Your task to perform on an android device: View the shopping cart on ebay. Add apple airpods to the cart on ebay, then select checkout. Image 0: 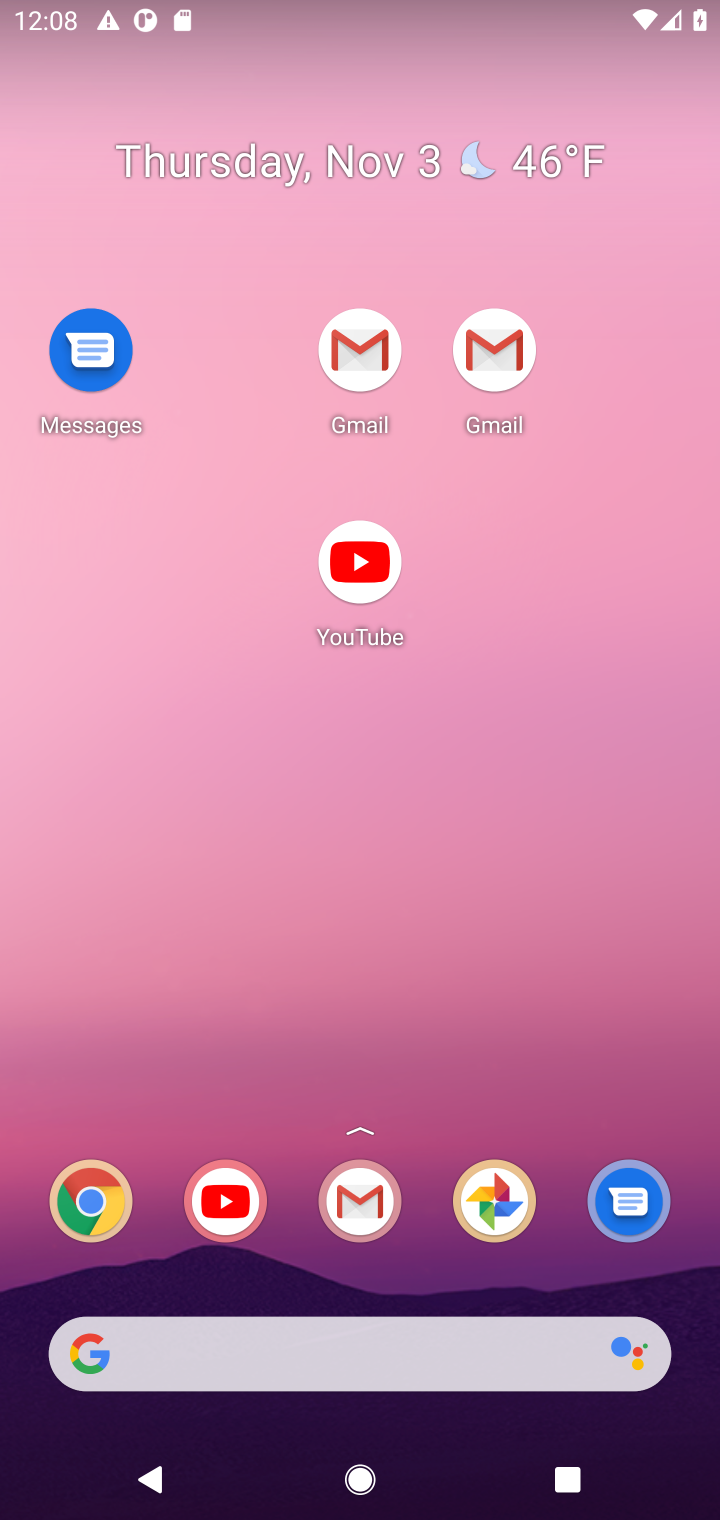
Step 0: drag from (504, 927) to (535, 262)
Your task to perform on an android device: View the shopping cart on ebay. Add apple airpods to the cart on ebay, then select checkout. Image 1: 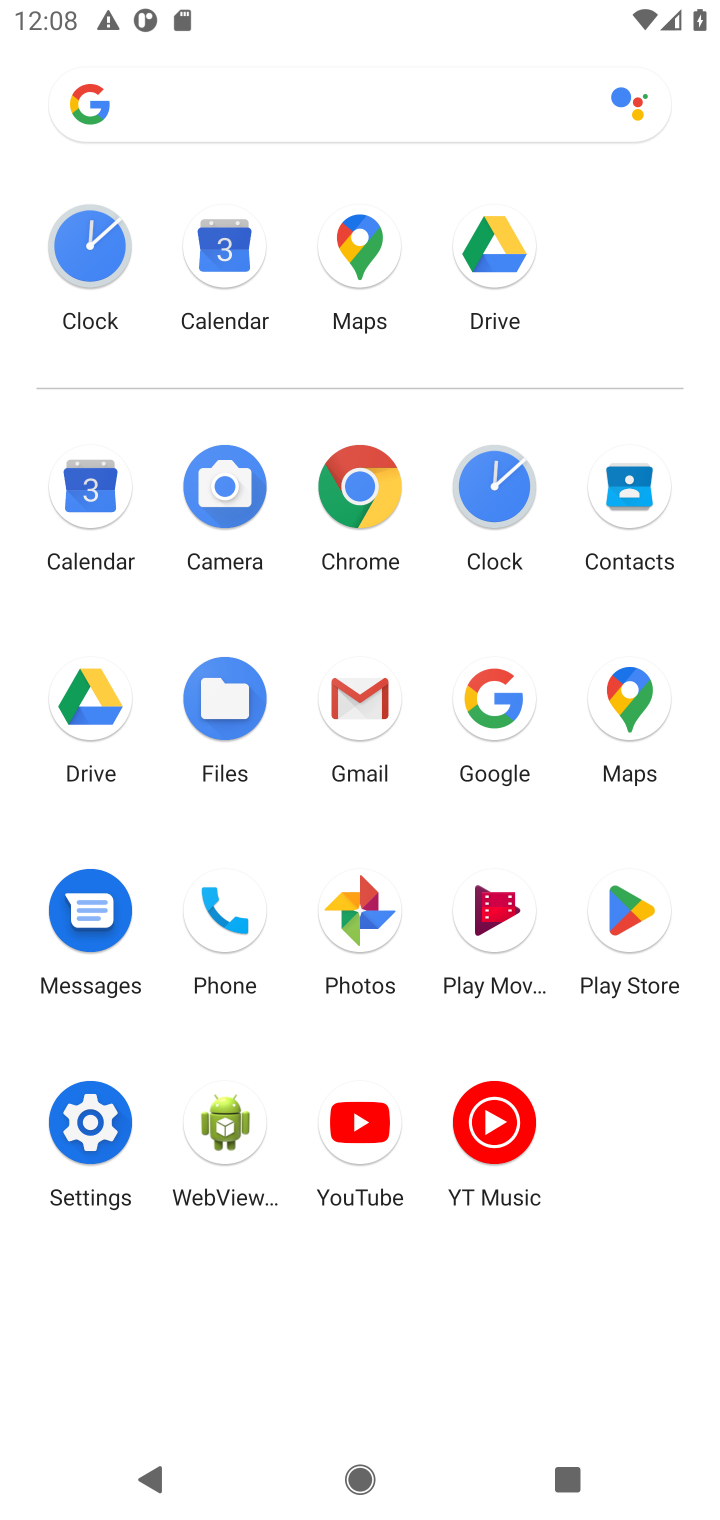
Step 1: click (375, 478)
Your task to perform on an android device: View the shopping cart on ebay. Add apple airpods to the cart on ebay, then select checkout. Image 2: 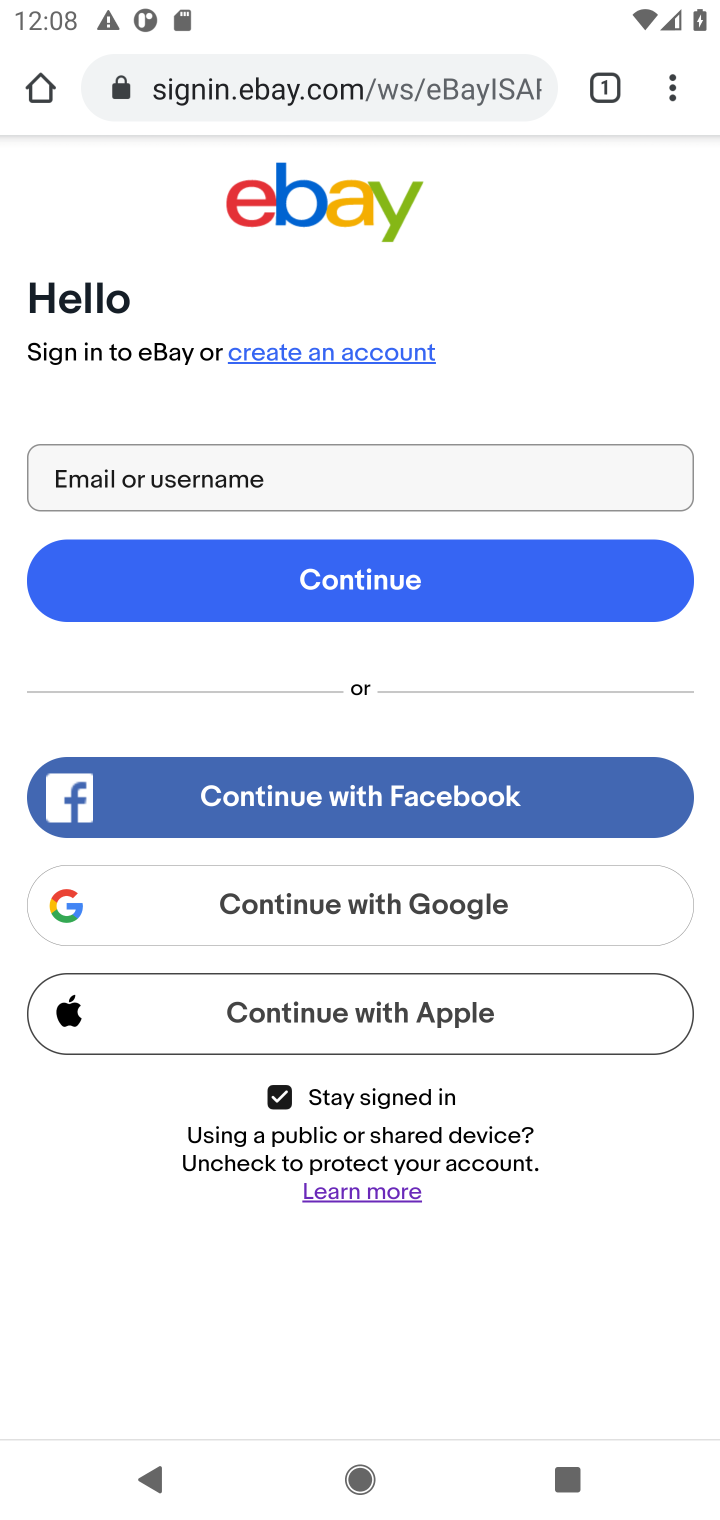
Step 2: click (316, 79)
Your task to perform on an android device: View the shopping cart on ebay. Add apple airpods to the cart on ebay, then select checkout. Image 3: 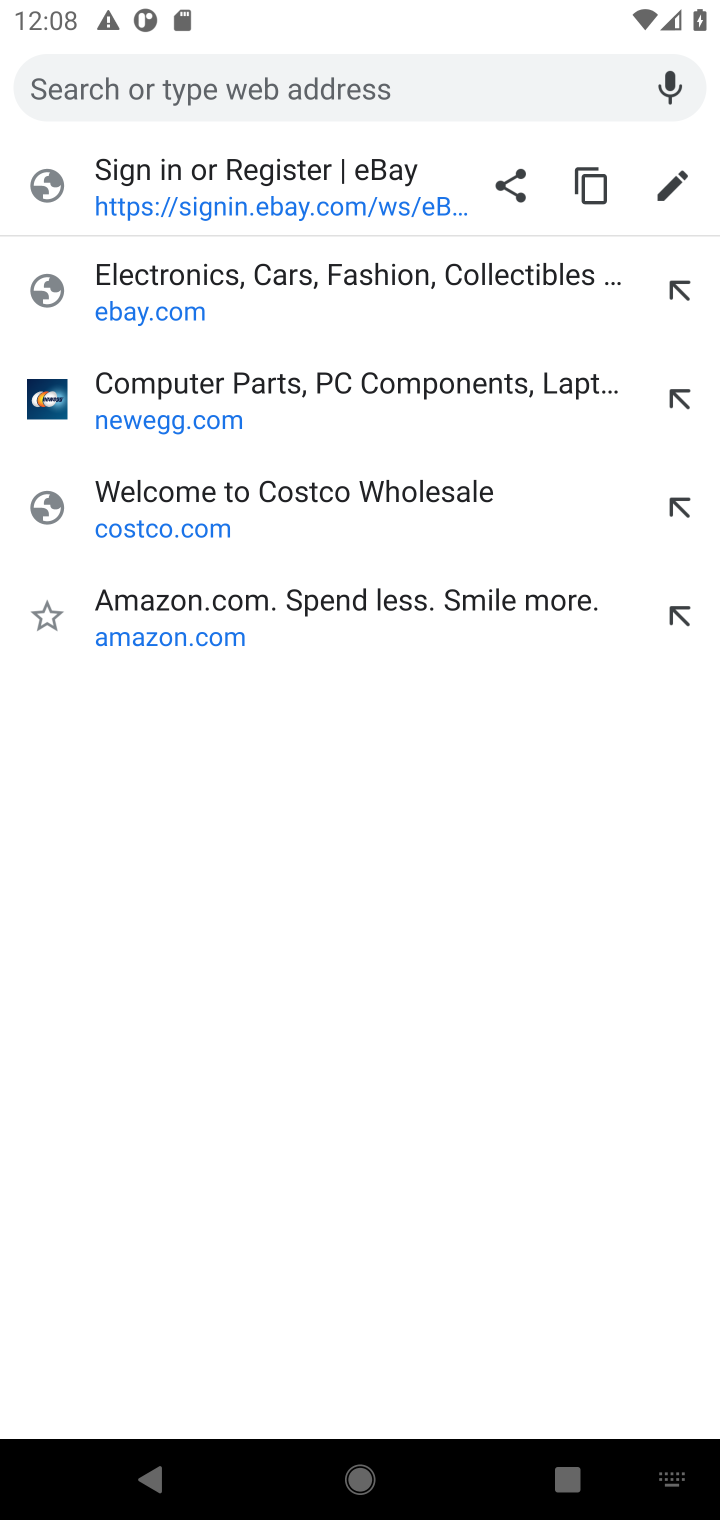
Step 3: type "ebay.com"
Your task to perform on an android device: View the shopping cart on ebay. Add apple airpods to the cart on ebay, then select checkout. Image 4: 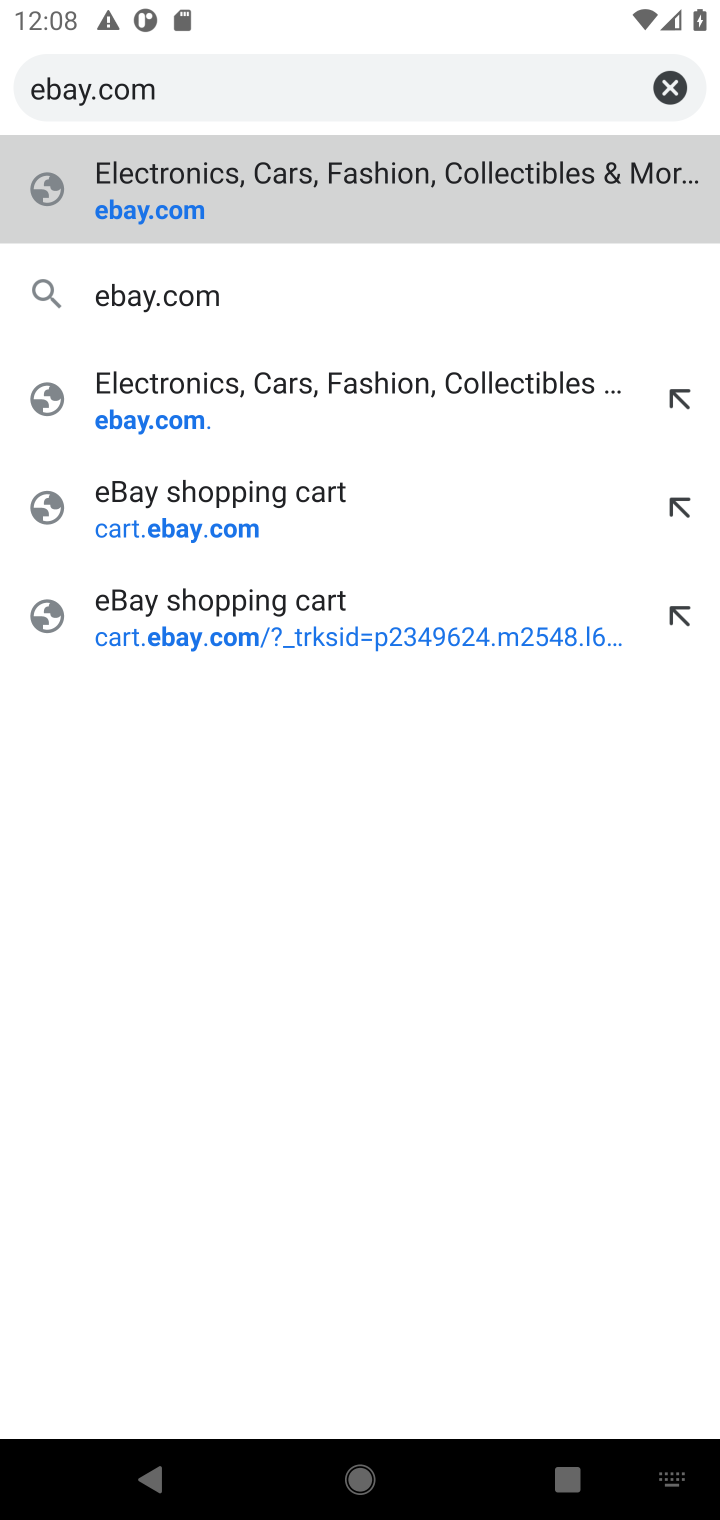
Step 4: press enter
Your task to perform on an android device: View the shopping cart on ebay. Add apple airpods to the cart on ebay, then select checkout. Image 5: 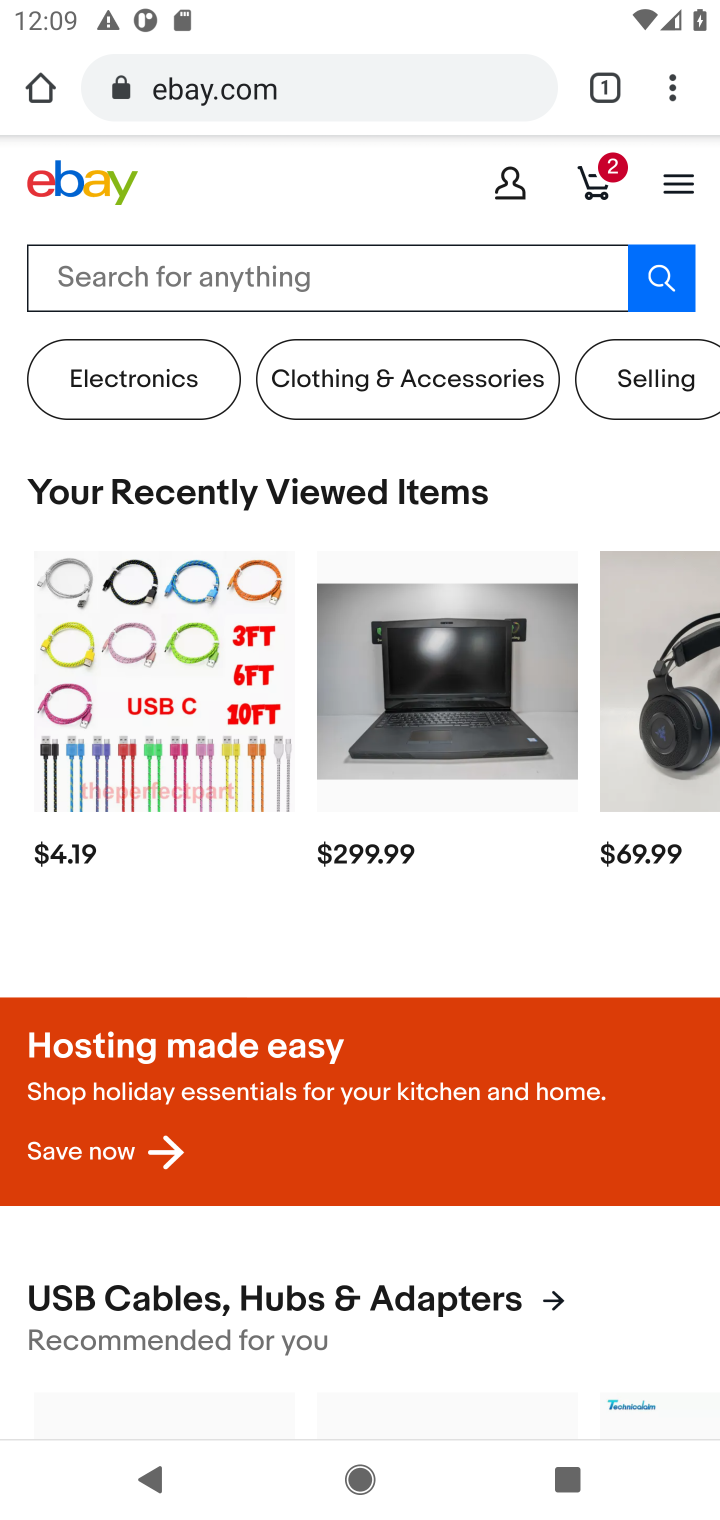
Step 5: click (593, 168)
Your task to perform on an android device: View the shopping cart on ebay. Add apple airpods to the cart on ebay, then select checkout. Image 6: 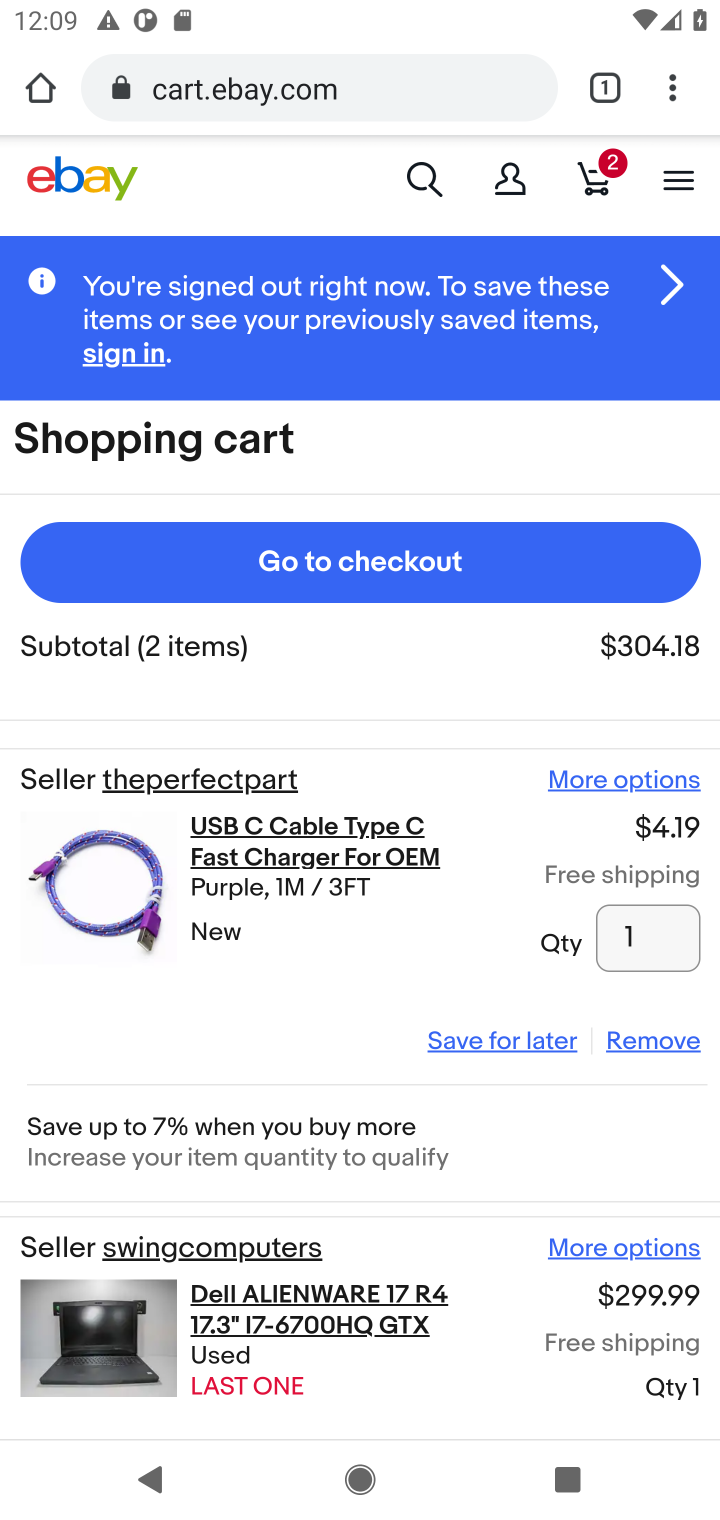
Step 6: click (446, 170)
Your task to perform on an android device: View the shopping cart on ebay. Add apple airpods to the cart on ebay, then select checkout. Image 7: 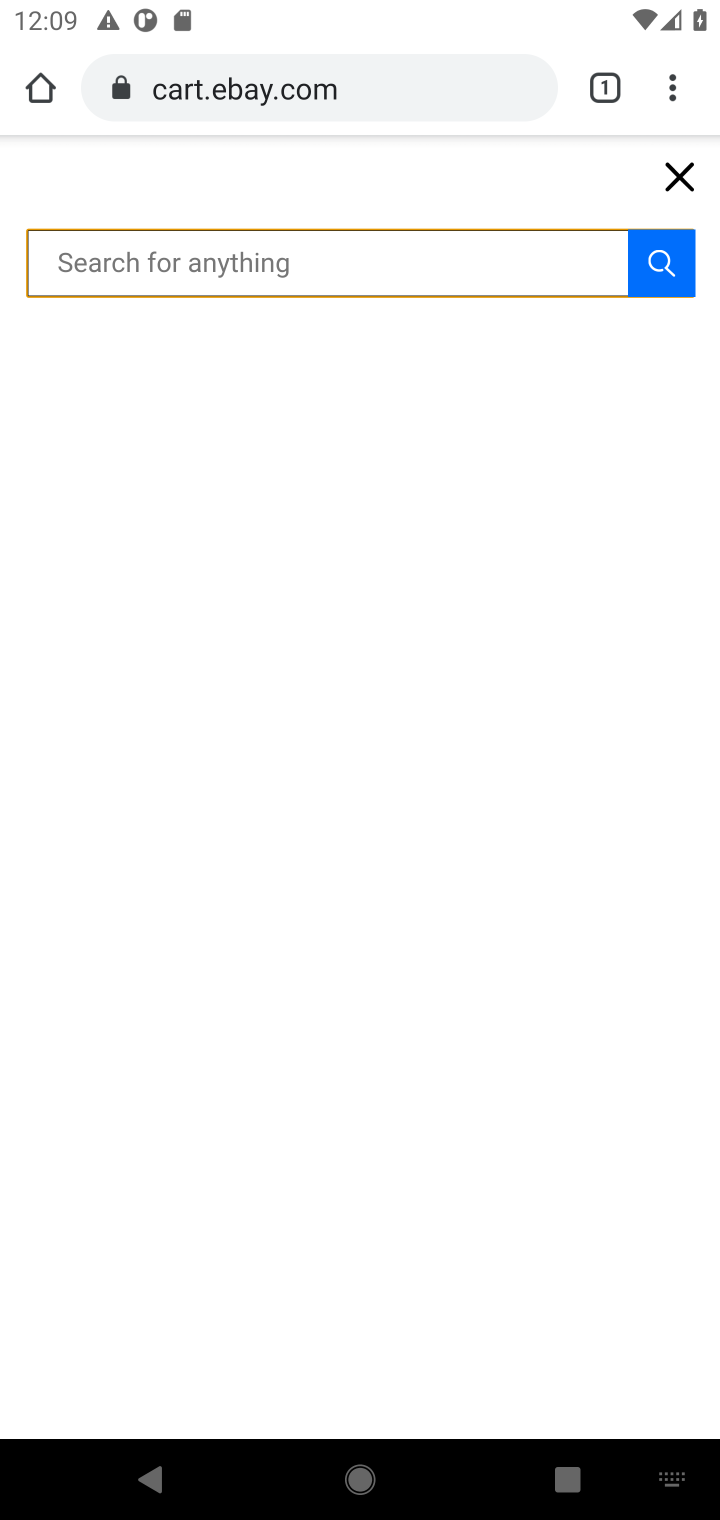
Step 7: type "apple airpods"
Your task to perform on an android device: View the shopping cart on ebay. Add apple airpods to the cart on ebay, then select checkout. Image 8: 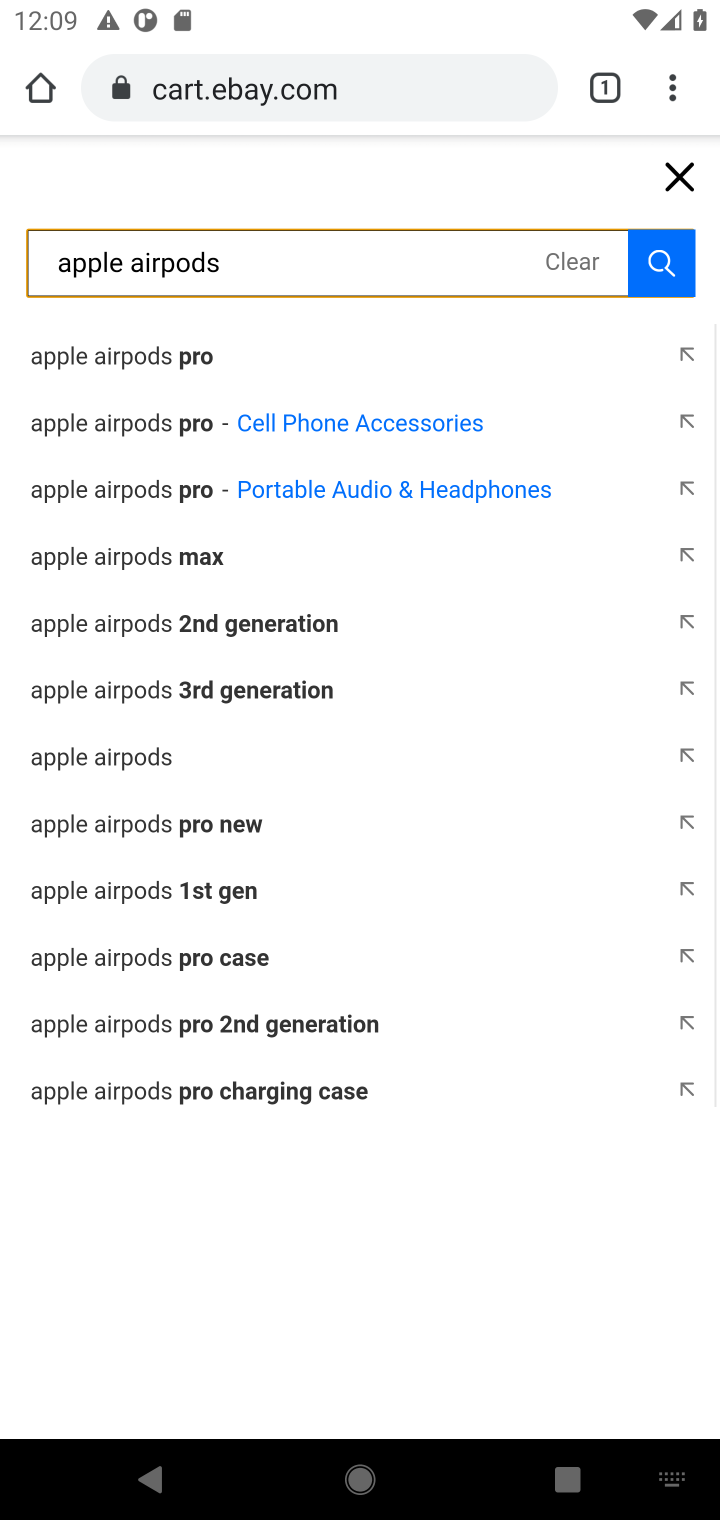
Step 8: press enter
Your task to perform on an android device: View the shopping cart on ebay. Add apple airpods to the cart on ebay, then select checkout. Image 9: 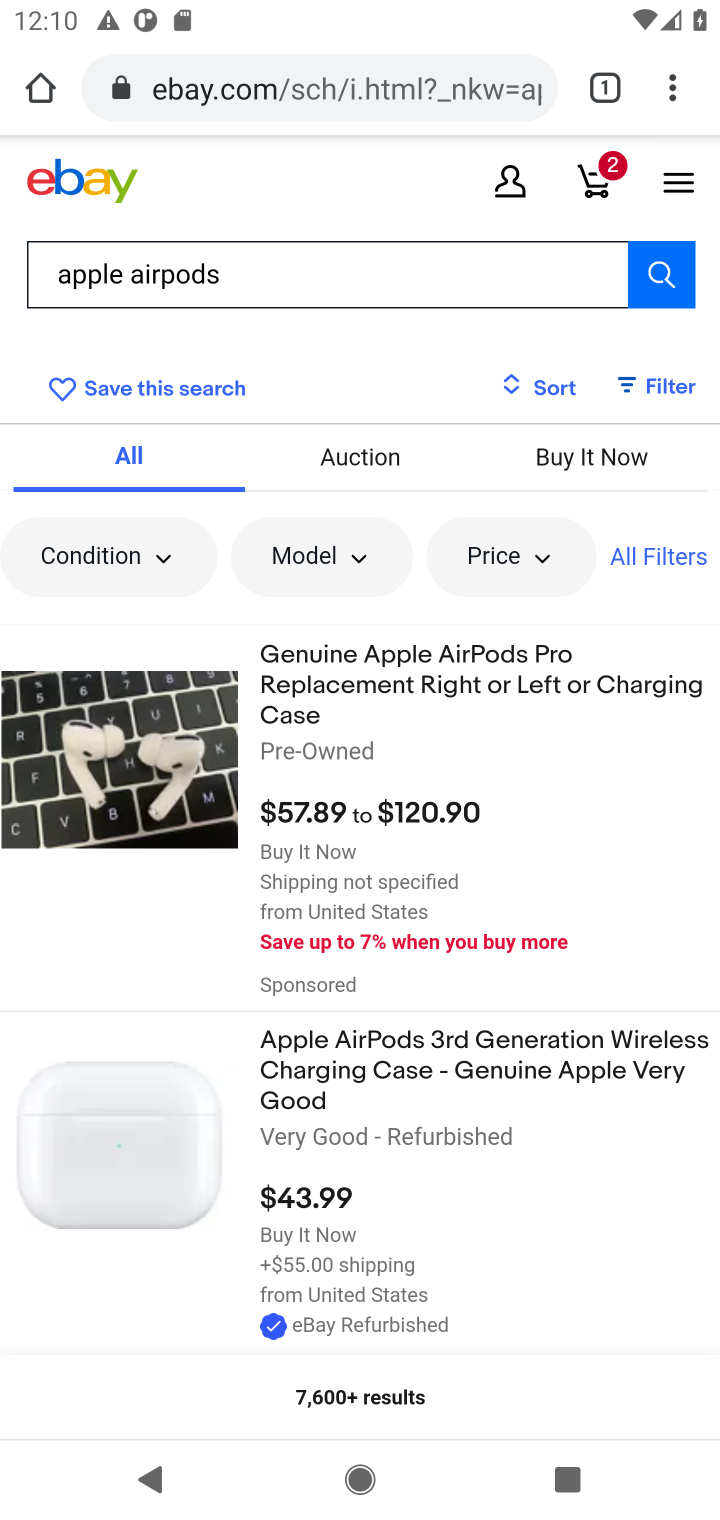
Step 9: drag from (348, 1313) to (369, 1144)
Your task to perform on an android device: View the shopping cart on ebay. Add apple airpods to the cart on ebay, then select checkout. Image 10: 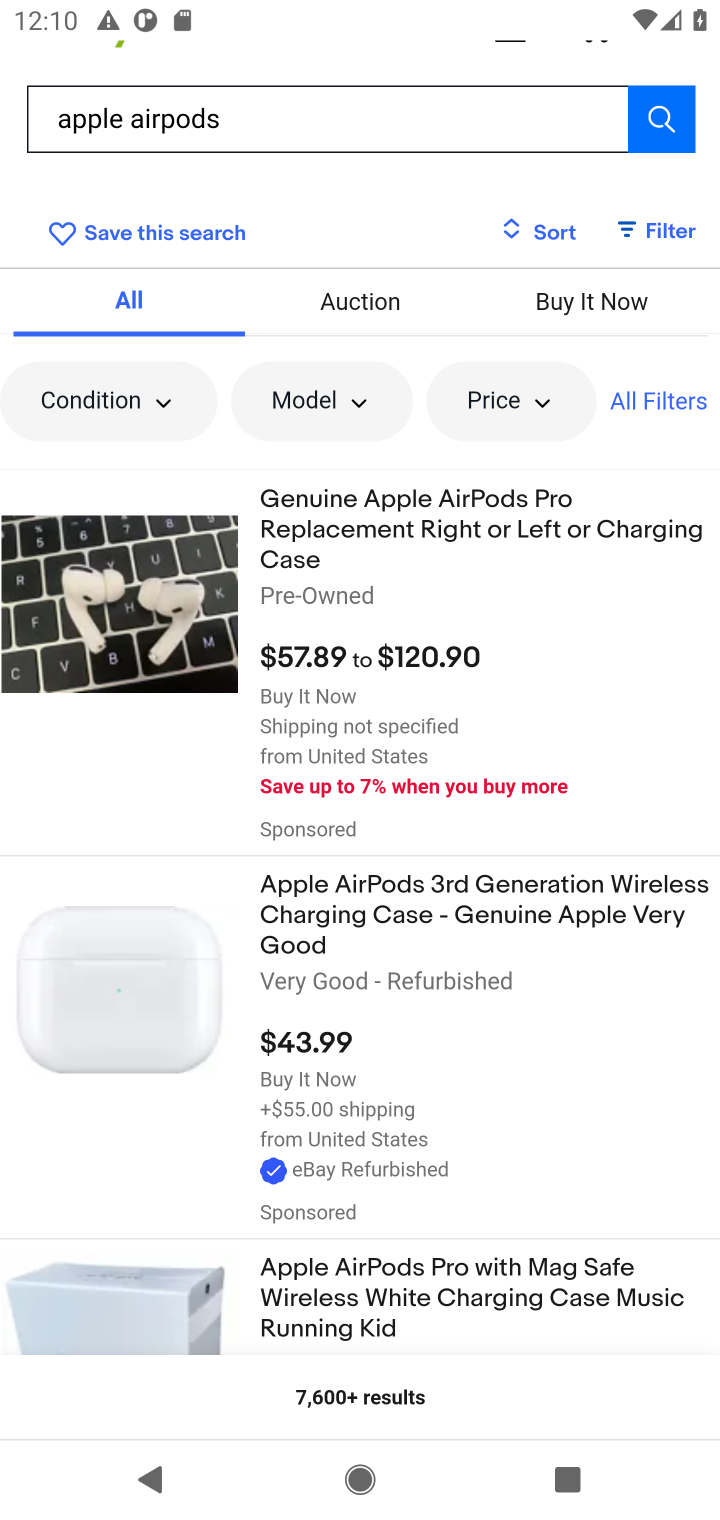
Step 10: click (161, 602)
Your task to perform on an android device: View the shopping cart on ebay. Add apple airpods to the cart on ebay, then select checkout. Image 11: 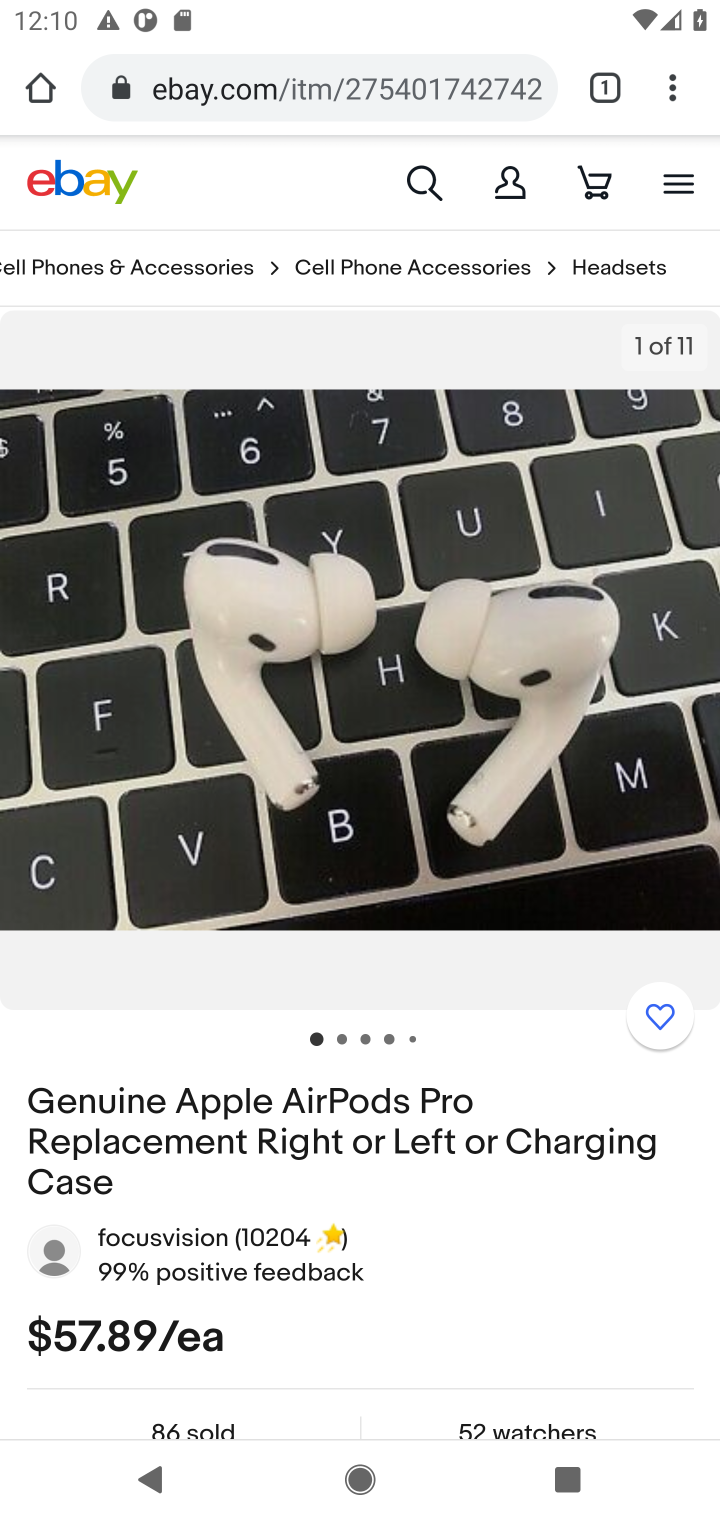
Step 11: drag from (326, 1222) to (381, 758)
Your task to perform on an android device: View the shopping cart on ebay. Add apple airpods to the cart on ebay, then select checkout. Image 12: 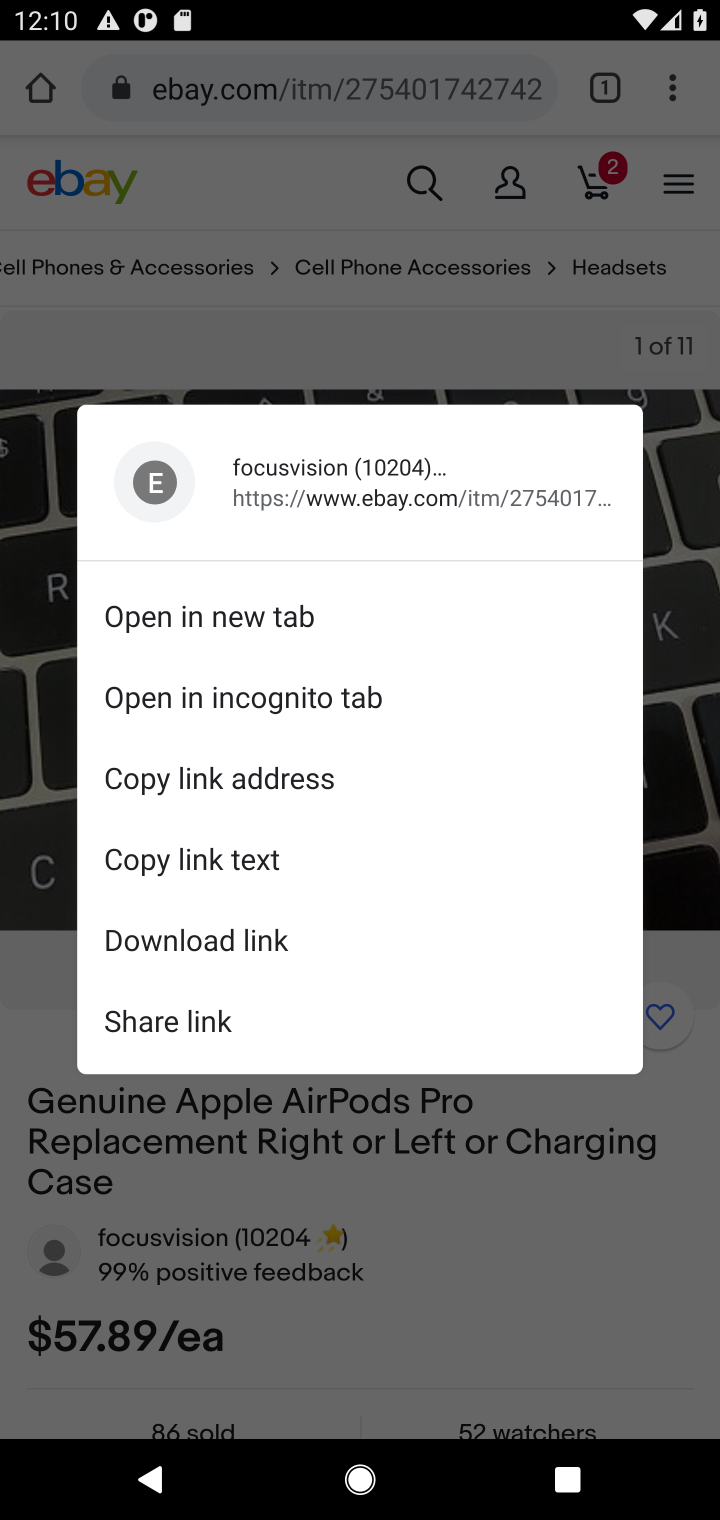
Step 12: click (442, 1198)
Your task to perform on an android device: View the shopping cart on ebay. Add apple airpods to the cart on ebay, then select checkout. Image 13: 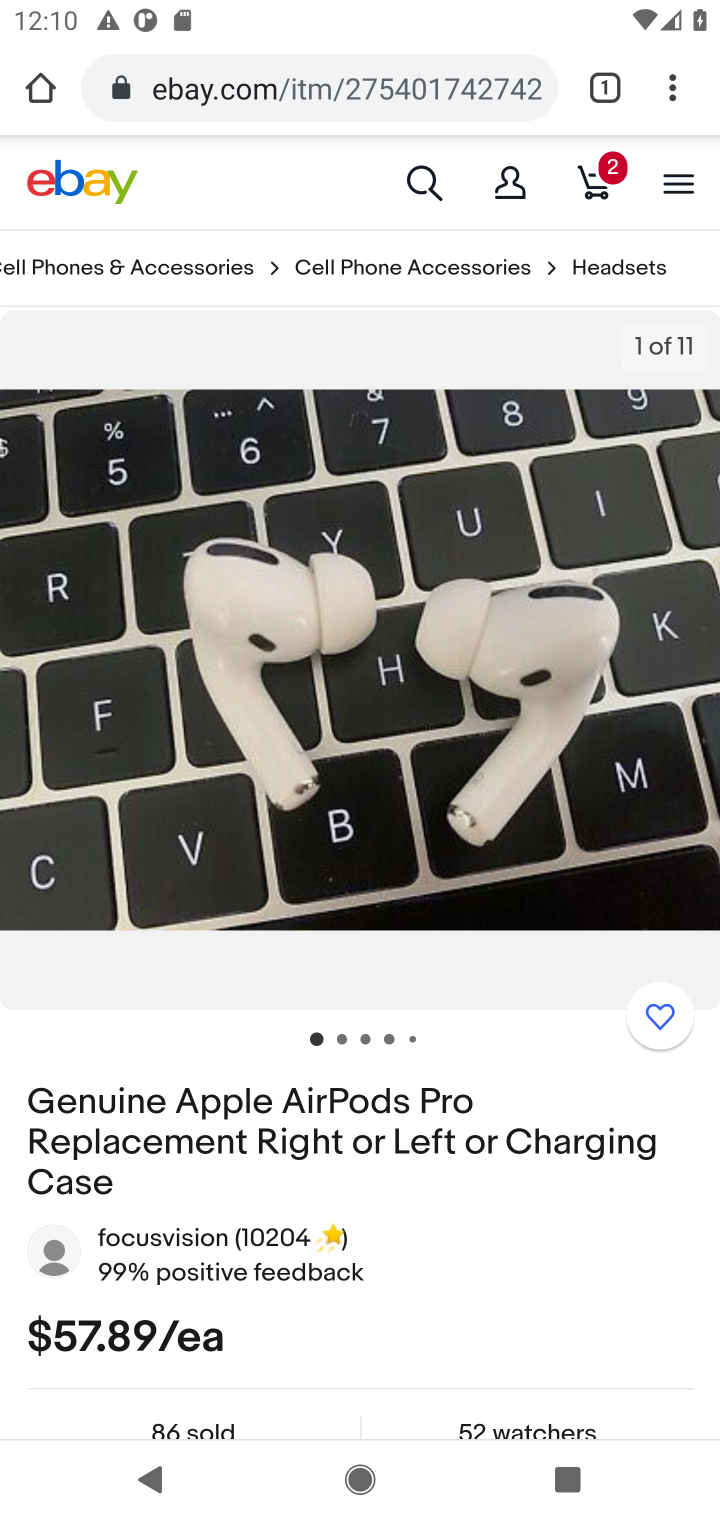
Step 13: drag from (487, 1256) to (495, 512)
Your task to perform on an android device: View the shopping cart on ebay. Add apple airpods to the cart on ebay, then select checkout. Image 14: 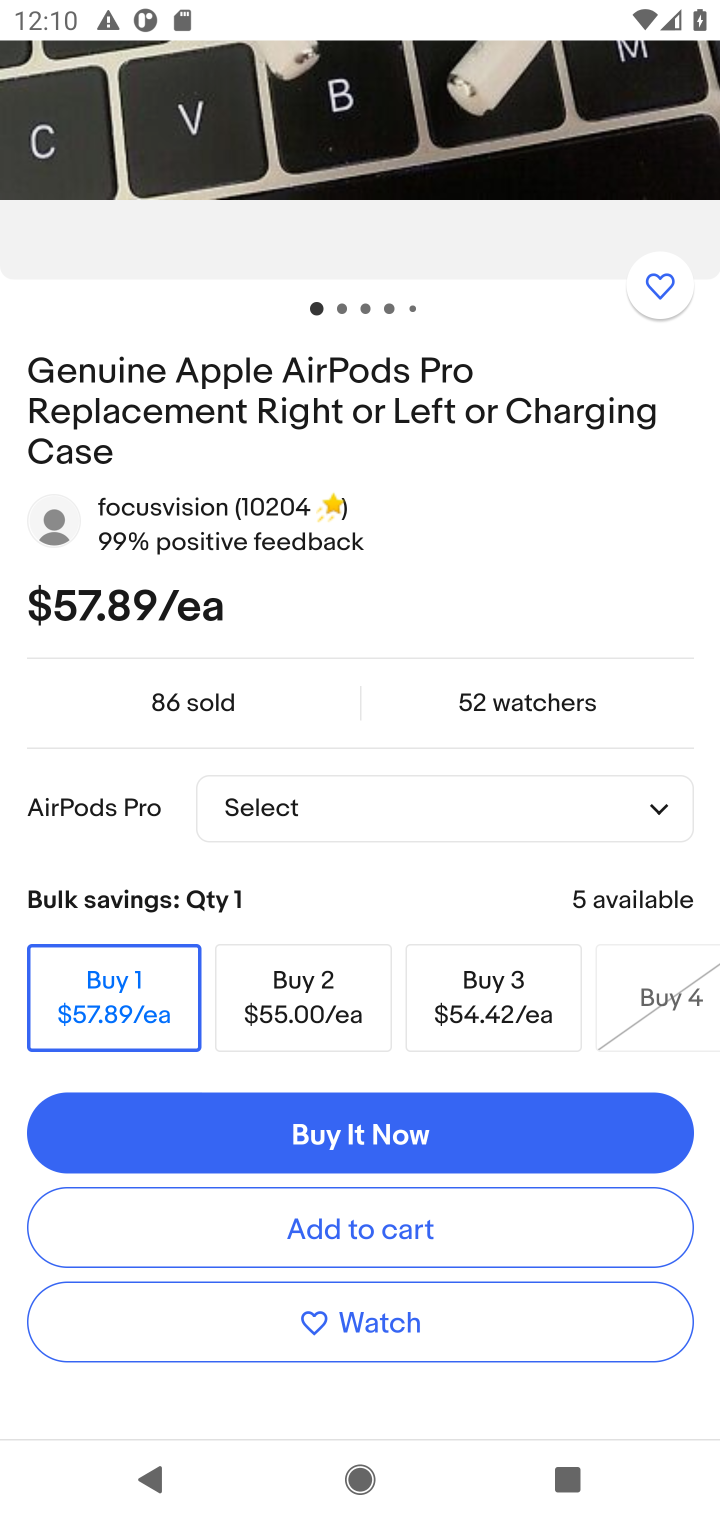
Step 14: click (422, 1225)
Your task to perform on an android device: View the shopping cart on ebay. Add apple airpods to the cart on ebay, then select checkout. Image 15: 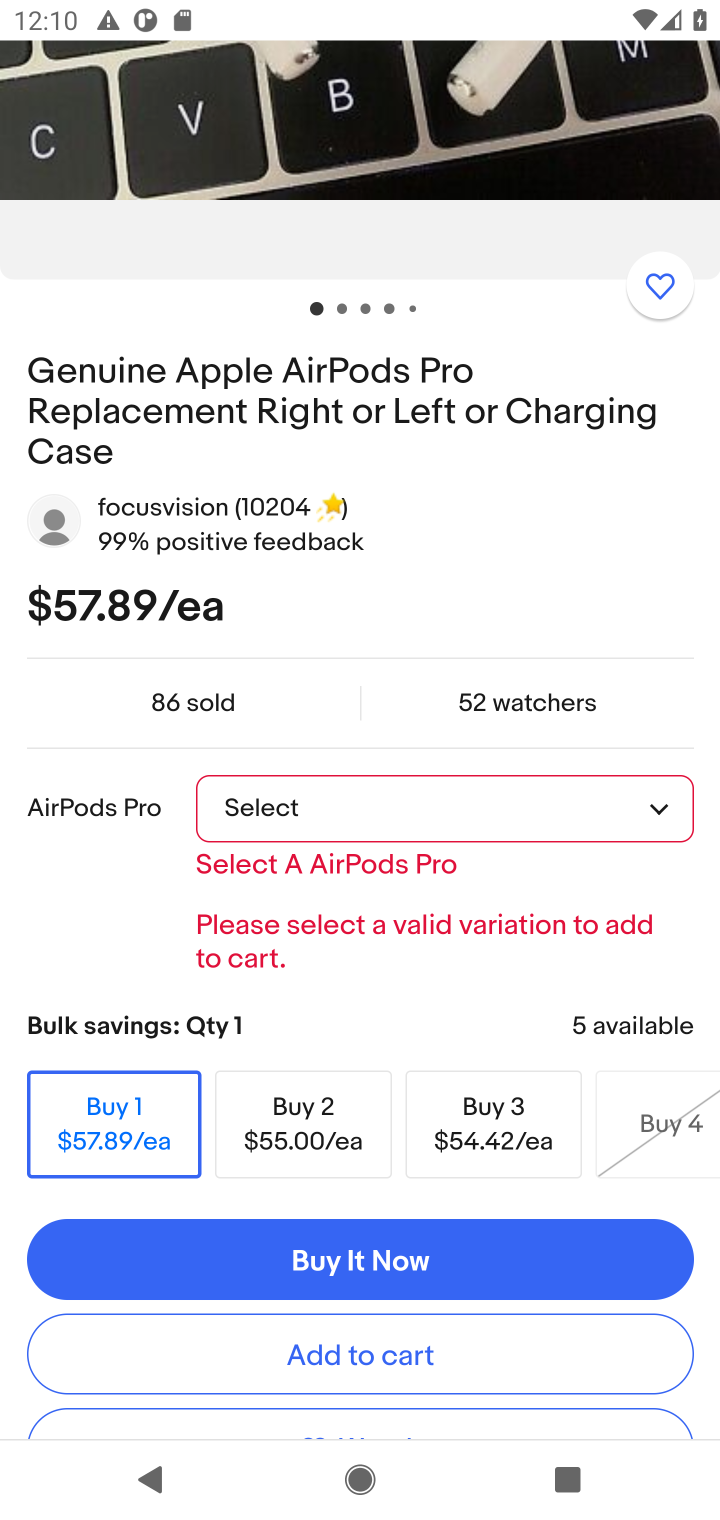
Step 15: click (409, 1325)
Your task to perform on an android device: View the shopping cart on ebay. Add apple airpods to the cart on ebay, then select checkout. Image 16: 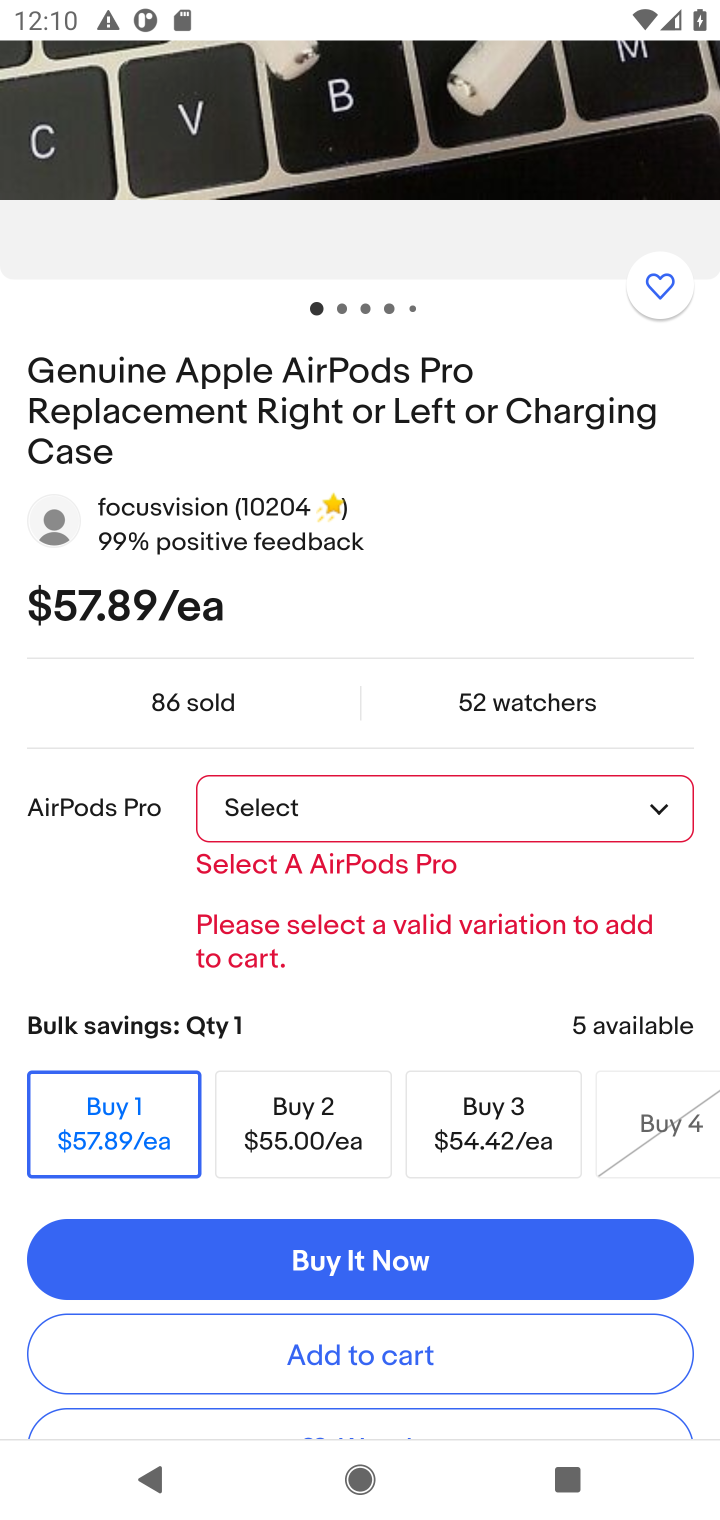
Step 16: click (409, 1349)
Your task to perform on an android device: View the shopping cart on ebay. Add apple airpods to the cart on ebay, then select checkout. Image 17: 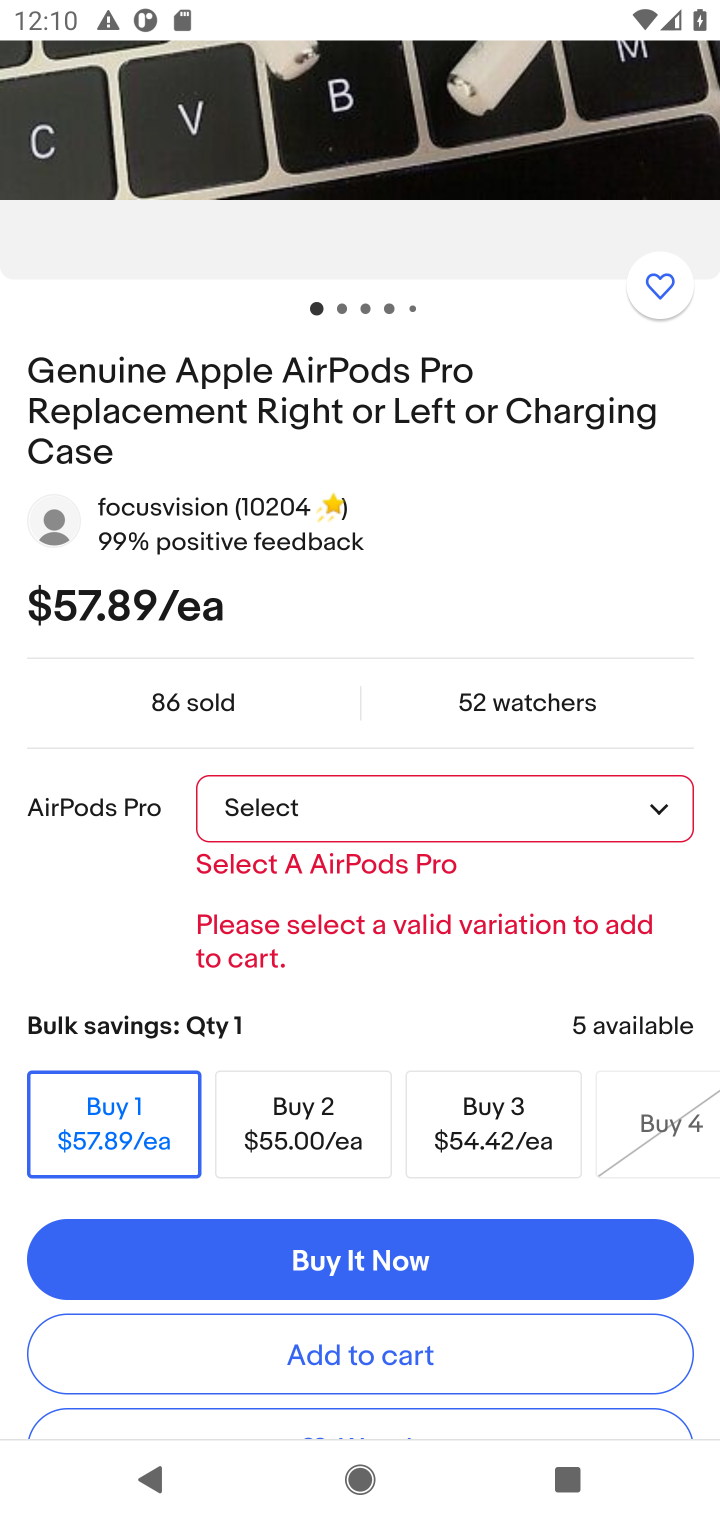
Step 17: drag from (275, 922) to (294, 749)
Your task to perform on an android device: View the shopping cart on ebay. Add apple airpods to the cart on ebay, then select checkout. Image 18: 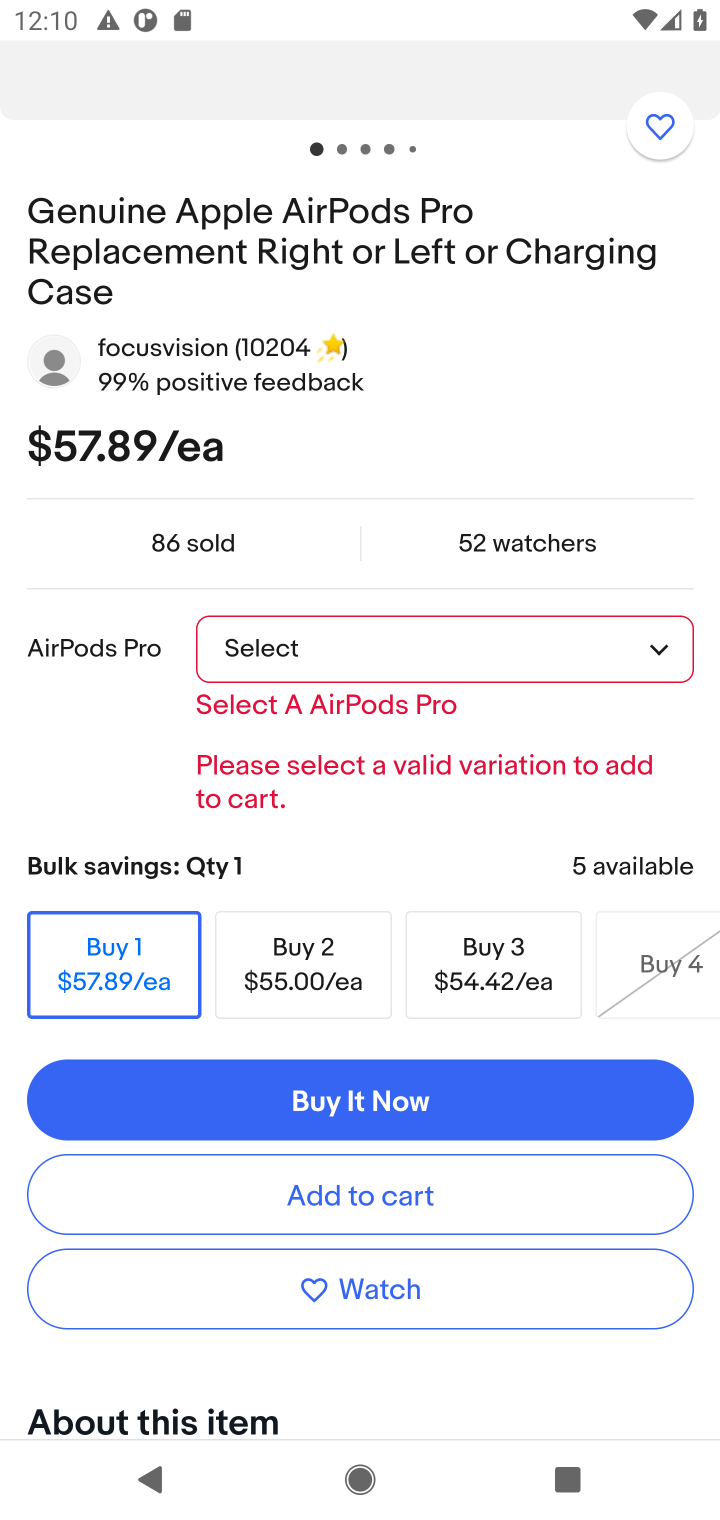
Step 18: click (487, 632)
Your task to perform on an android device: View the shopping cart on ebay. Add apple airpods to the cart on ebay, then select checkout. Image 19: 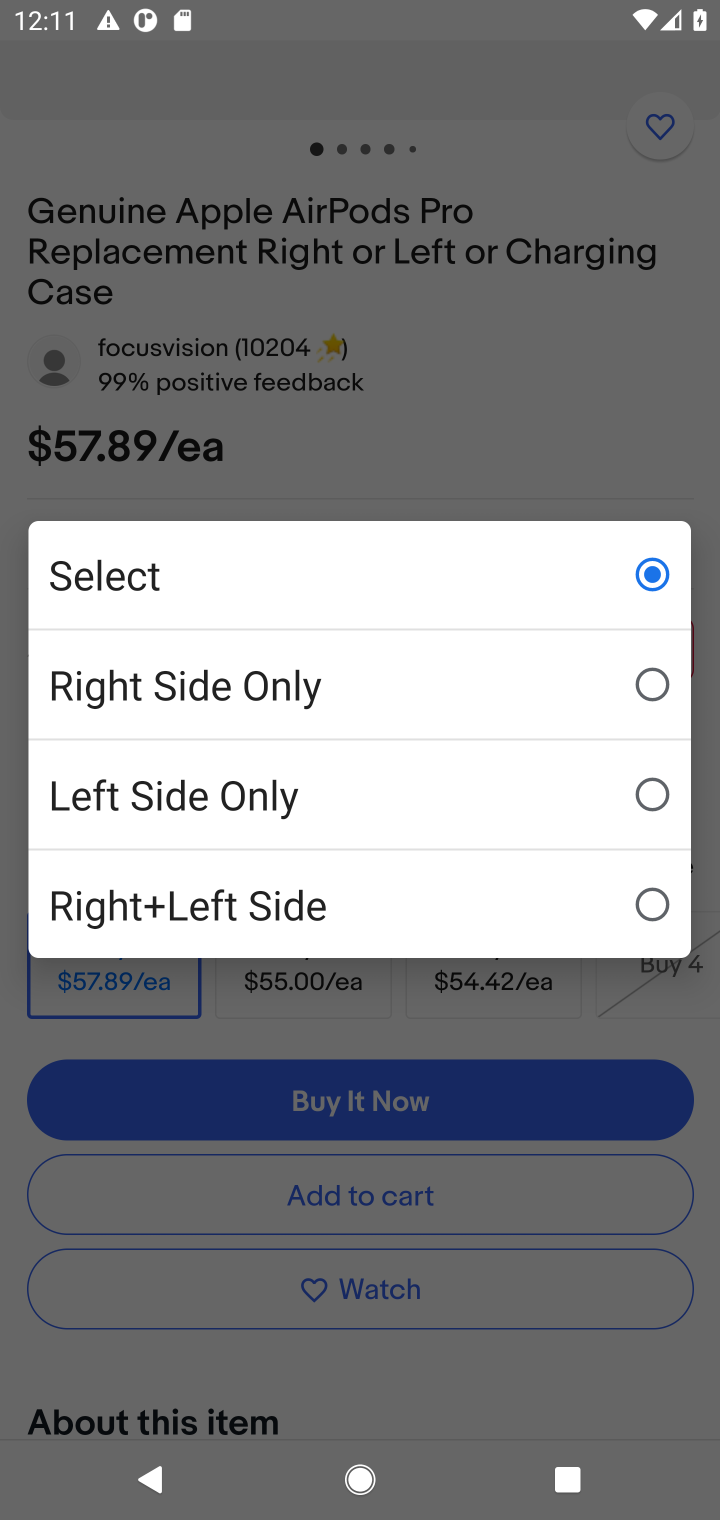
Step 19: click (390, 696)
Your task to perform on an android device: View the shopping cart on ebay. Add apple airpods to the cart on ebay, then select checkout. Image 20: 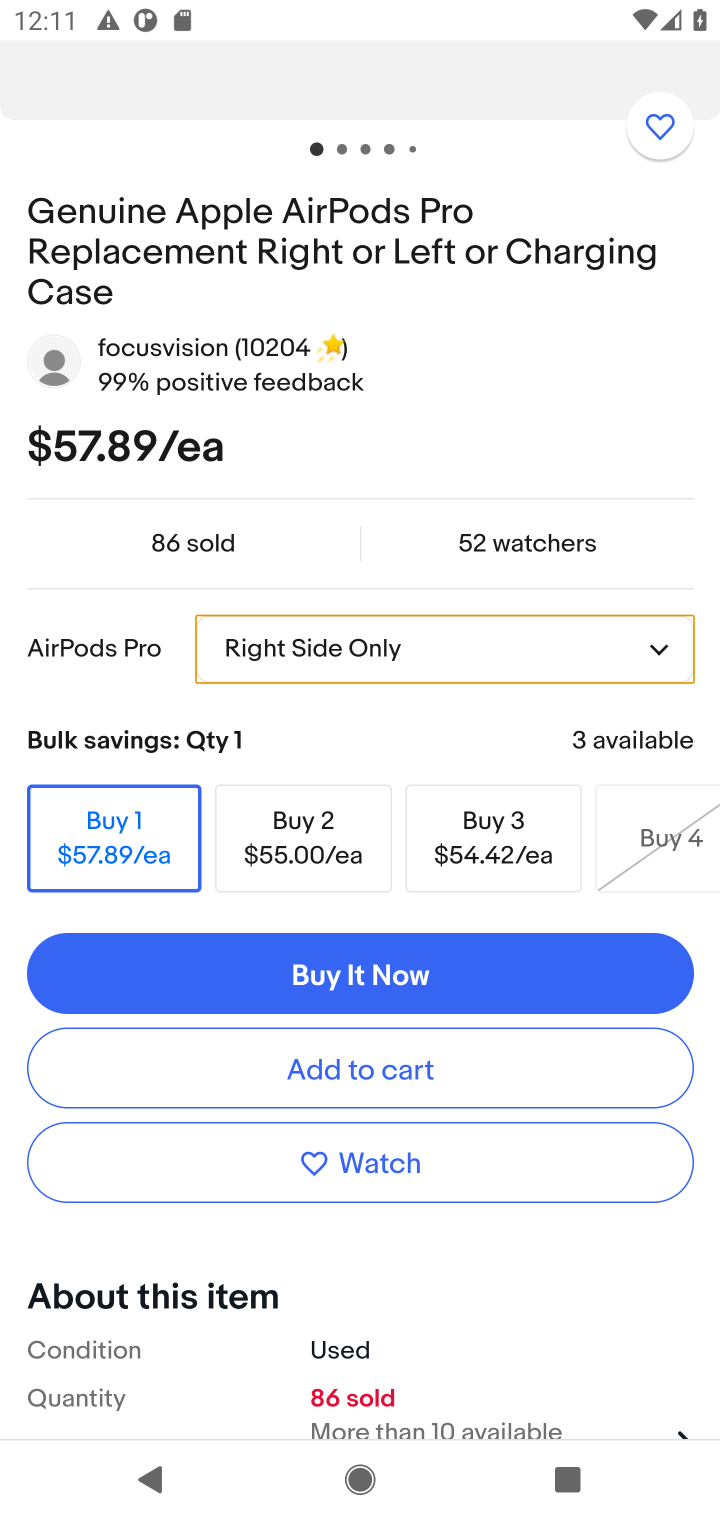
Step 20: click (415, 1063)
Your task to perform on an android device: View the shopping cart on ebay. Add apple airpods to the cart on ebay, then select checkout. Image 21: 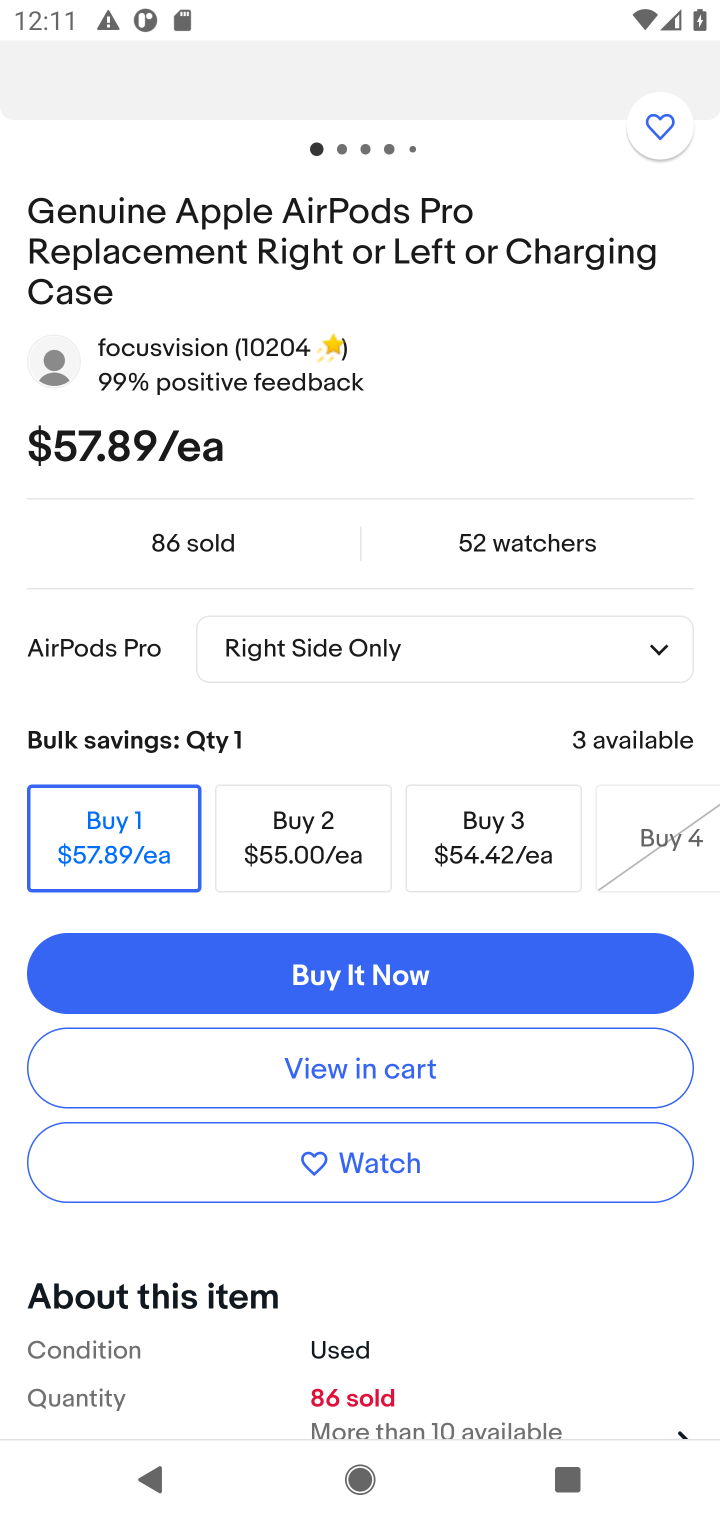
Step 21: drag from (306, 673) to (237, 870)
Your task to perform on an android device: View the shopping cart on ebay. Add apple airpods to the cart on ebay, then select checkout. Image 22: 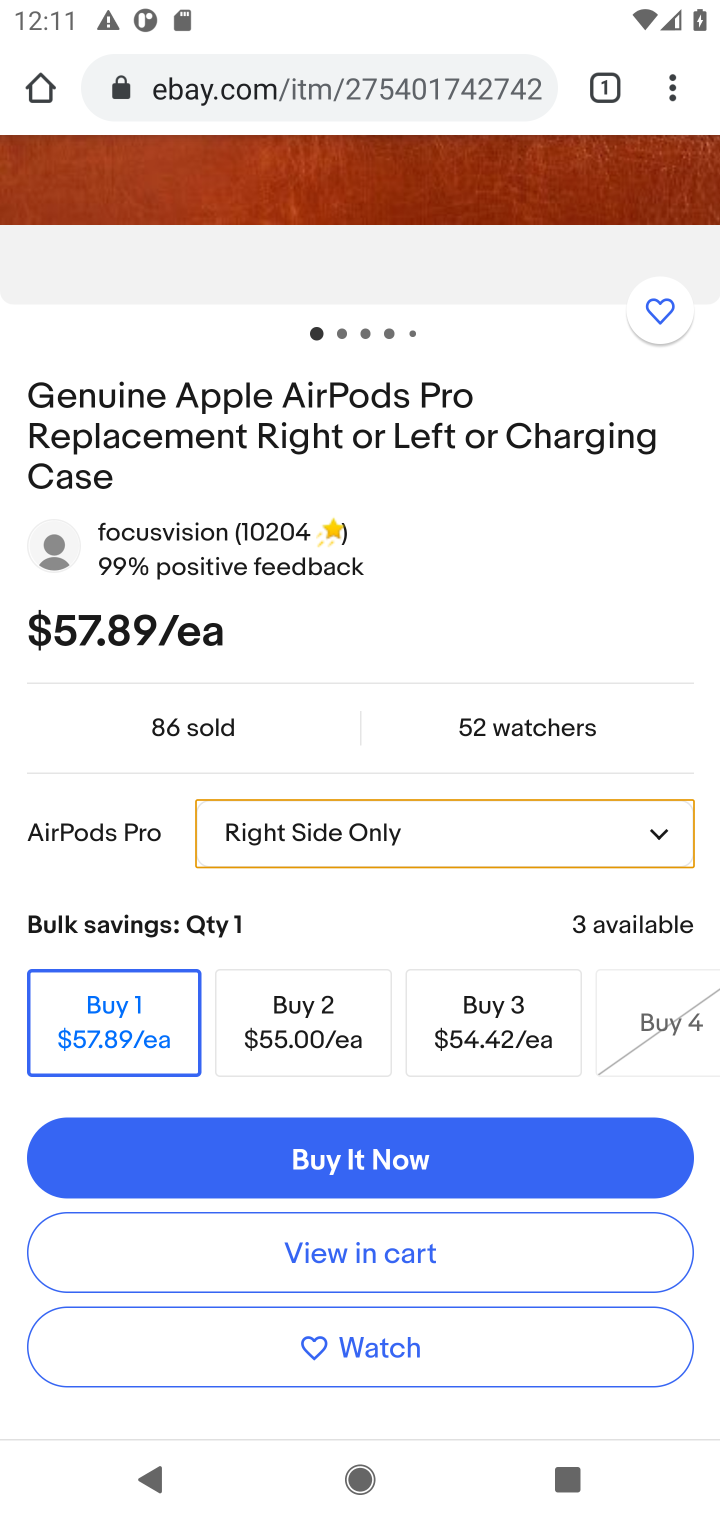
Step 22: click (322, 1263)
Your task to perform on an android device: View the shopping cart on ebay. Add apple airpods to the cart on ebay, then select checkout. Image 23: 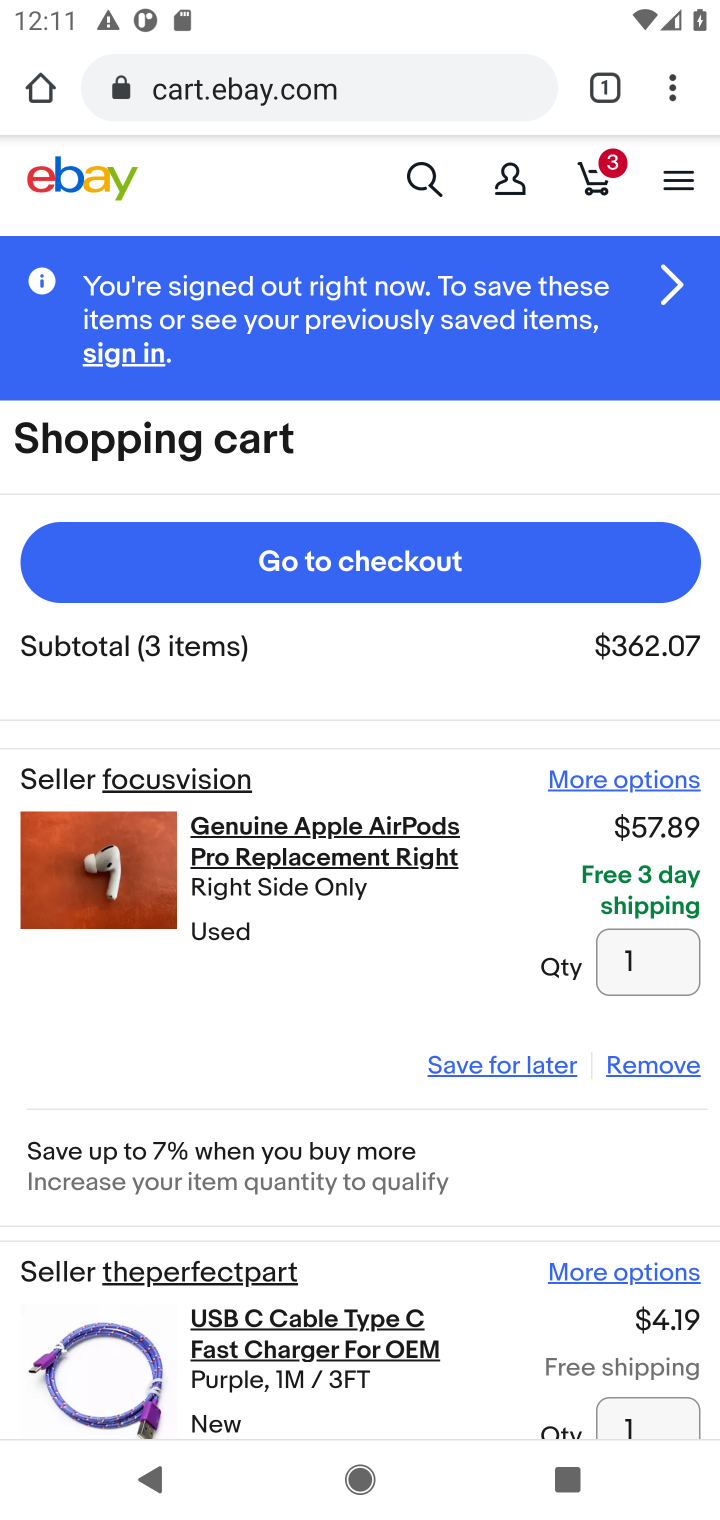
Step 23: click (383, 562)
Your task to perform on an android device: View the shopping cart on ebay. Add apple airpods to the cart on ebay, then select checkout. Image 24: 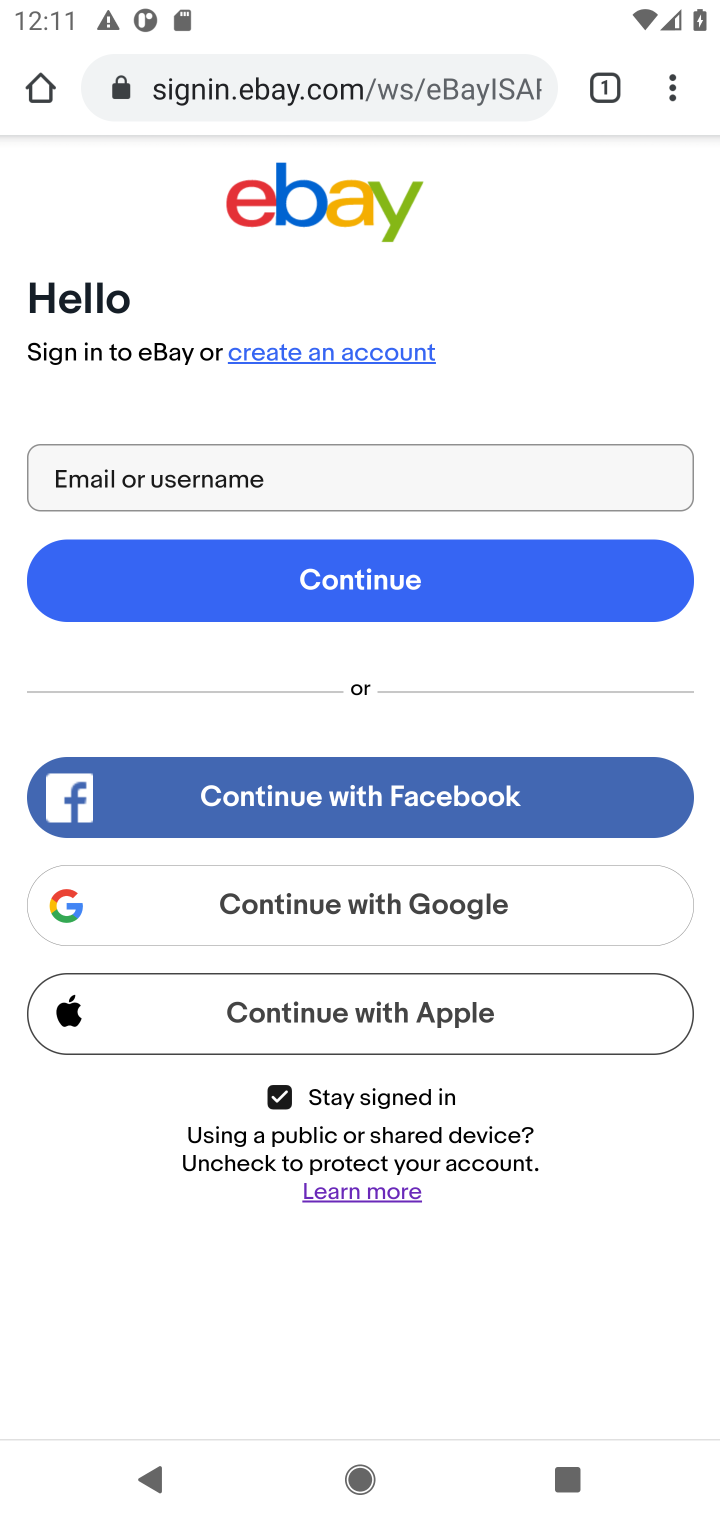
Step 24: task complete